Your task to perform on an android device: Go to settings Image 0: 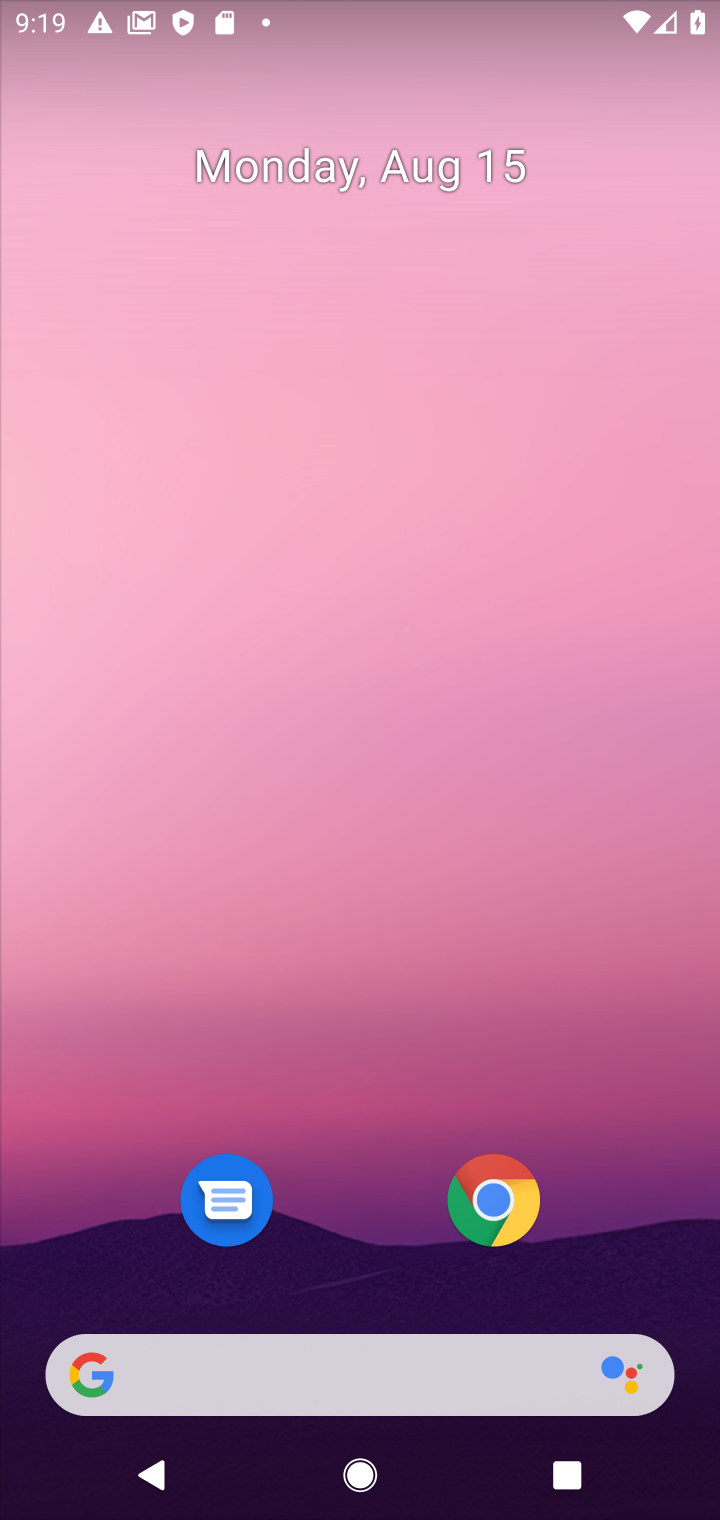
Step 0: drag from (354, 1001) to (301, 222)
Your task to perform on an android device: Go to settings Image 1: 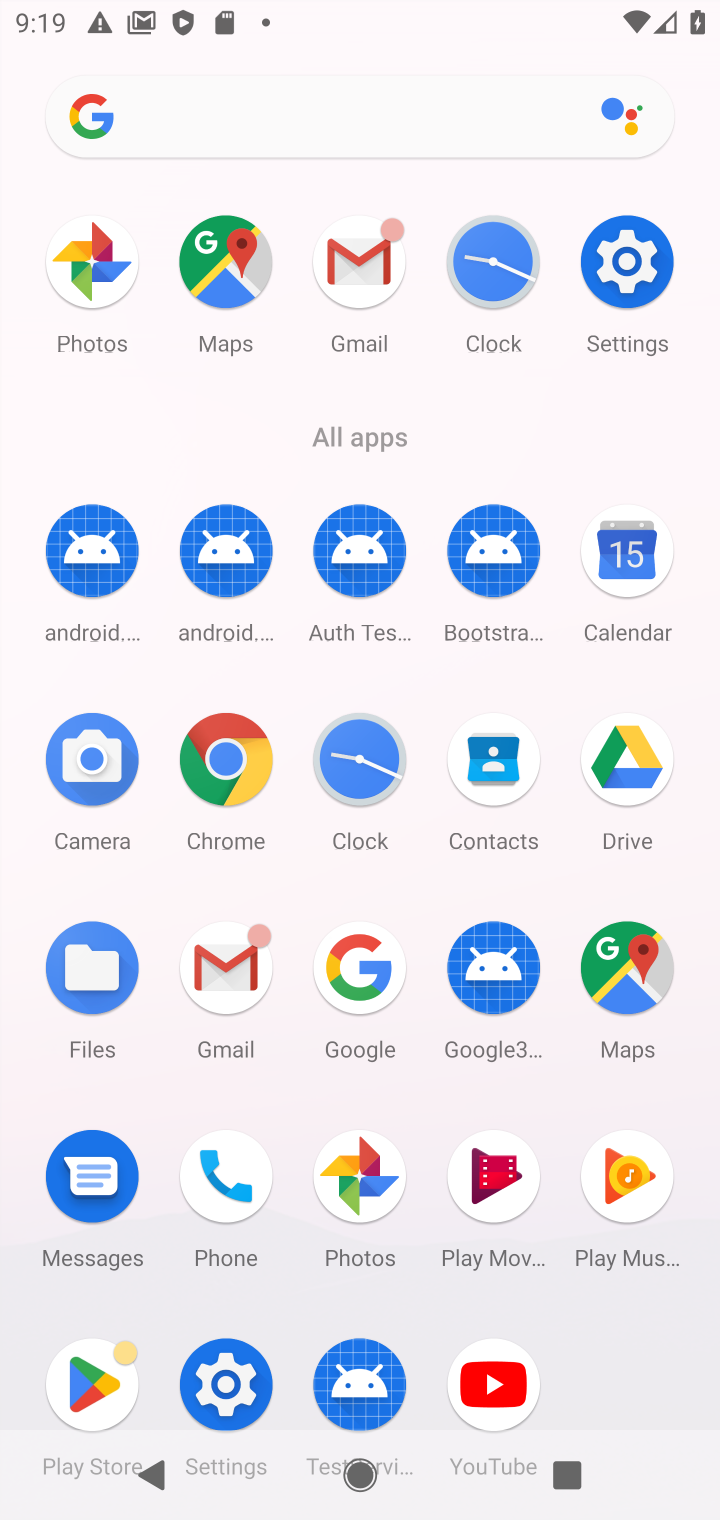
Step 1: click (604, 253)
Your task to perform on an android device: Go to settings Image 2: 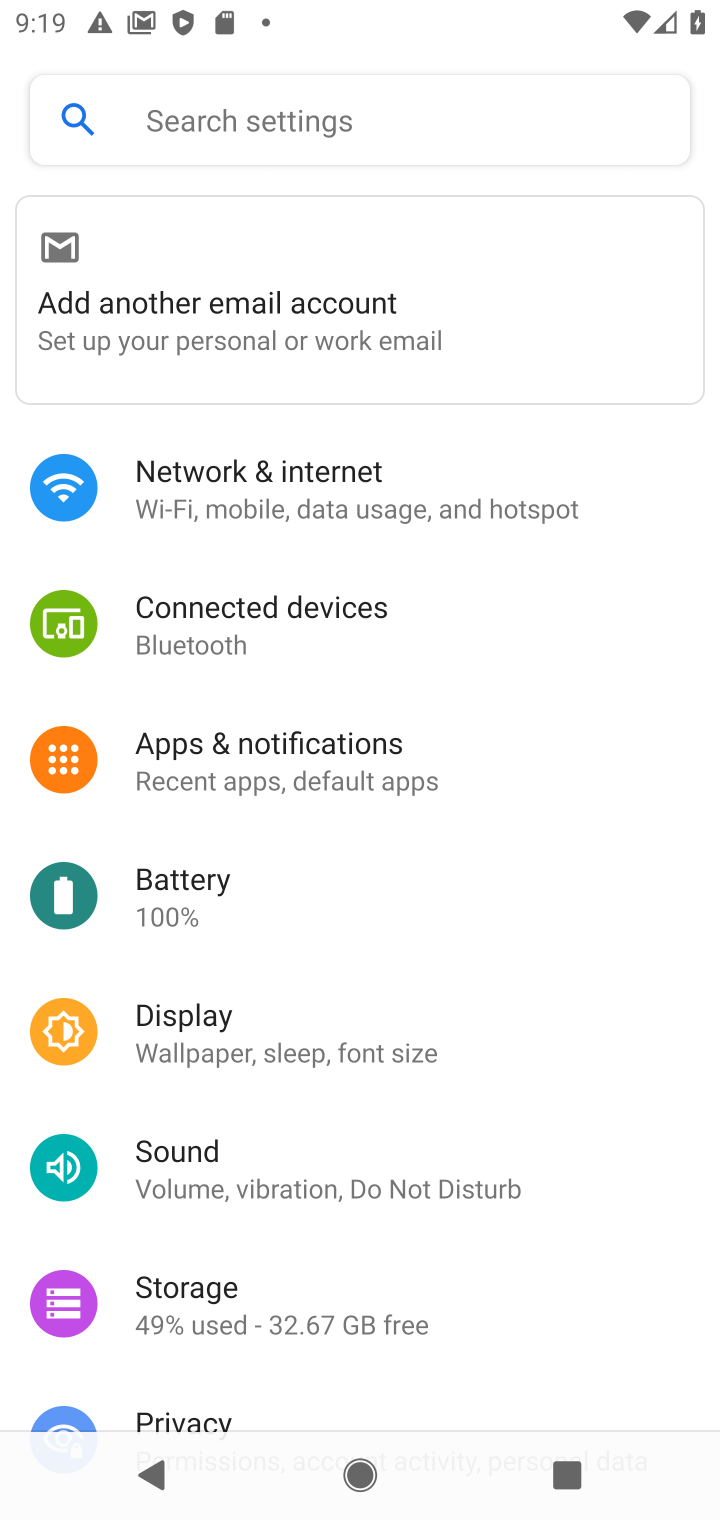
Step 2: task complete